Your task to perform on an android device: move a message to another label in the gmail app Image 0: 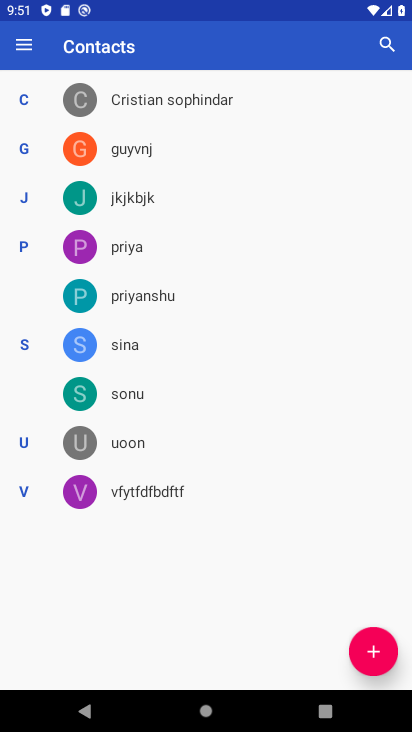
Step 0: press home button
Your task to perform on an android device: move a message to another label in the gmail app Image 1: 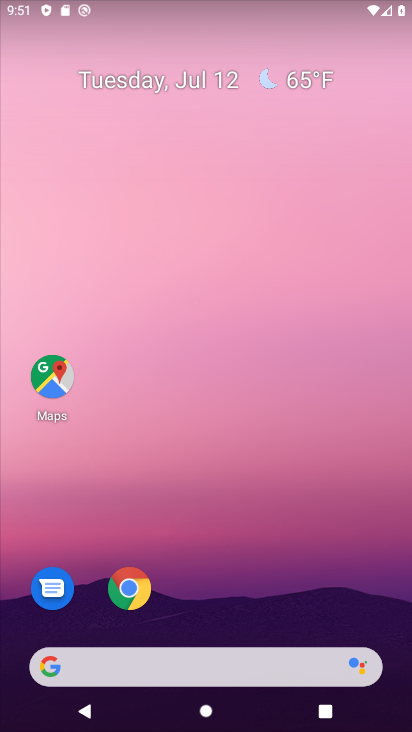
Step 1: drag from (96, 466) to (162, 167)
Your task to perform on an android device: move a message to another label in the gmail app Image 2: 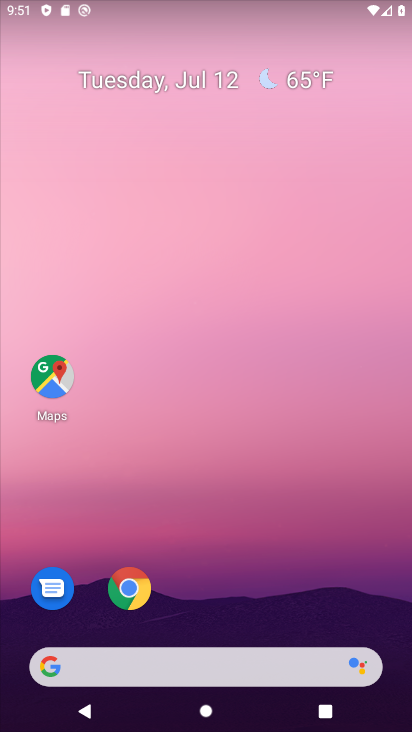
Step 2: drag from (208, 310) to (297, 27)
Your task to perform on an android device: move a message to another label in the gmail app Image 3: 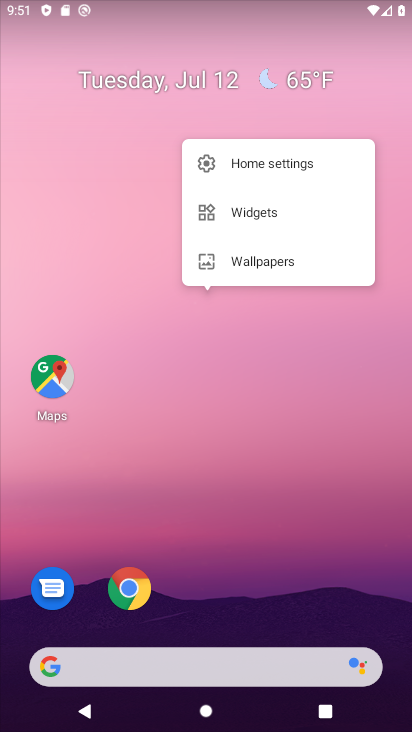
Step 3: drag from (33, 710) to (202, 176)
Your task to perform on an android device: move a message to another label in the gmail app Image 4: 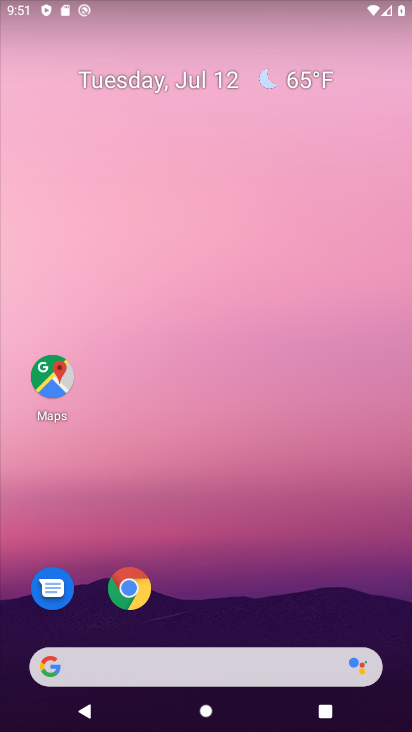
Step 4: drag from (20, 712) to (232, 134)
Your task to perform on an android device: move a message to another label in the gmail app Image 5: 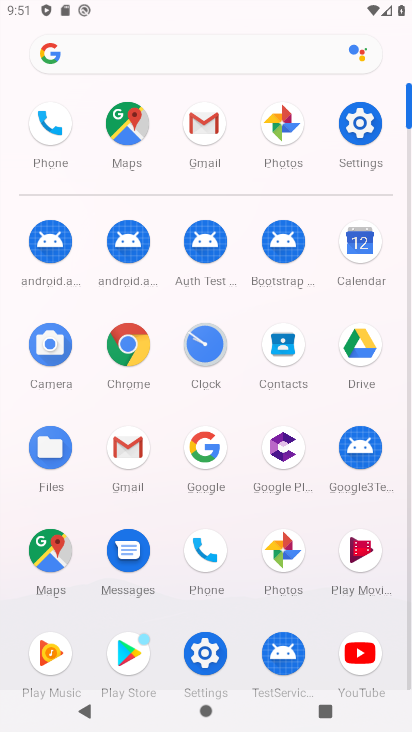
Step 5: click (212, 119)
Your task to perform on an android device: move a message to another label in the gmail app Image 6: 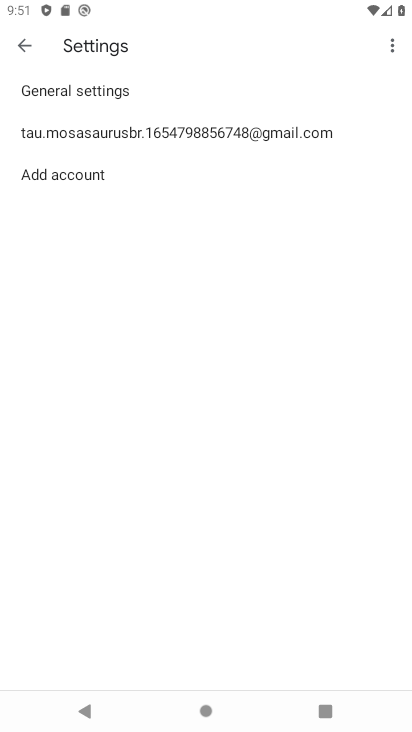
Step 6: click (20, 50)
Your task to perform on an android device: move a message to another label in the gmail app Image 7: 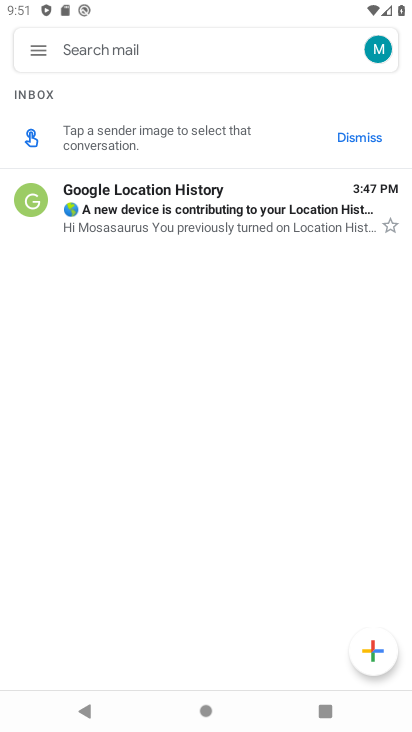
Step 7: click (36, 46)
Your task to perform on an android device: move a message to another label in the gmail app Image 8: 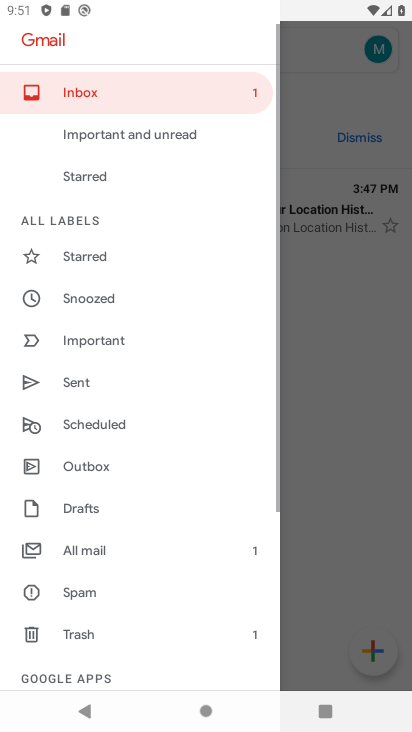
Step 8: click (96, 95)
Your task to perform on an android device: move a message to another label in the gmail app Image 9: 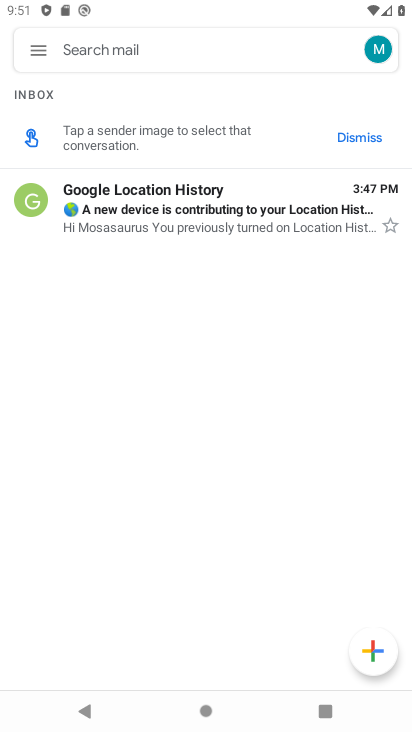
Step 9: task complete